Your task to perform on an android device: Go to network settings Image 0: 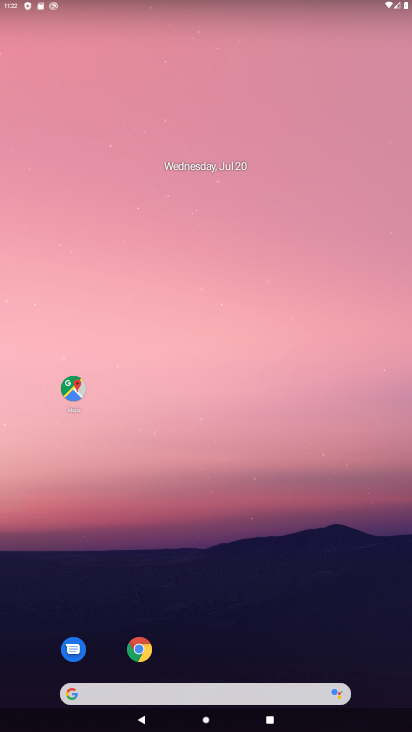
Step 0: drag from (273, 675) to (299, 177)
Your task to perform on an android device: Go to network settings Image 1: 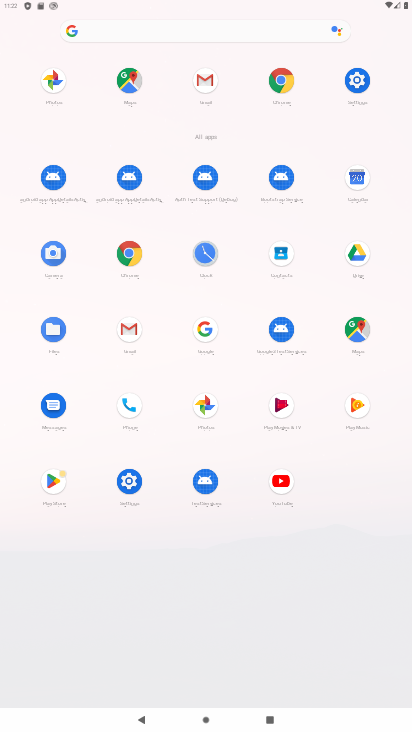
Step 1: click (351, 76)
Your task to perform on an android device: Go to network settings Image 2: 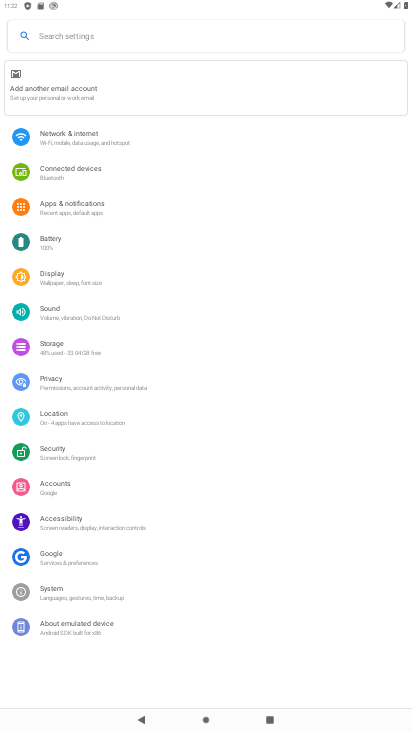
Step 2: click (69, 138)
Your task to perform on an android device: Go to network settings Image 3: 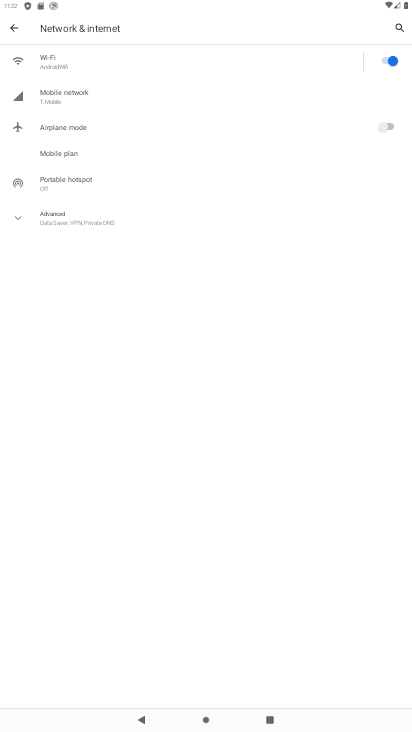
Step 3: task complete